Your task to perform on an android device: Go to Reddit.com Image 0: 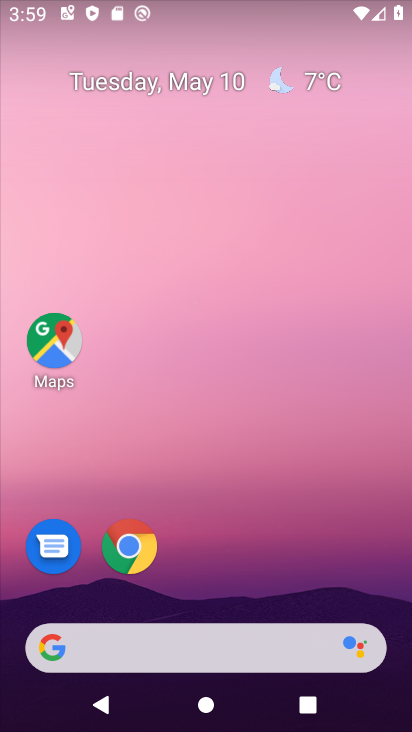
Step 0: drag from (289, 553) to (213, 170)
Your task to perform on an android device: Go to Reddit.com Image 1: 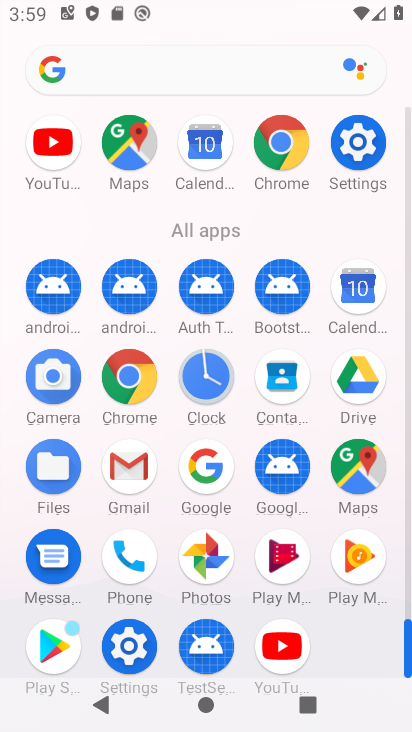
Step 1: click (283, 143)
Your task to perform on an android device: Go to Reddit.com Image 2: 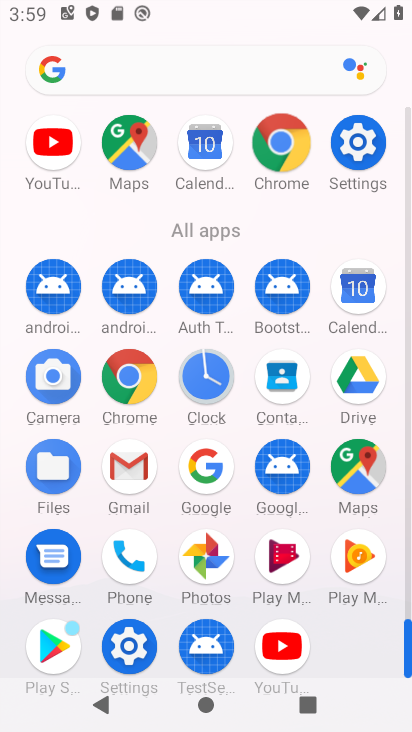
Step 2: click (283, 143)
Your task to perform on an android device: Go to Reddit.com Image 3: 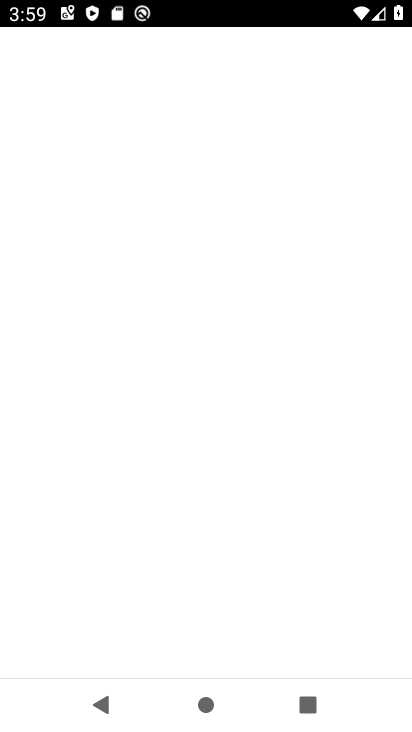
Step 3: click (283, 143)
Your task to perform on an android device: Go to Reddit.com Image 4: 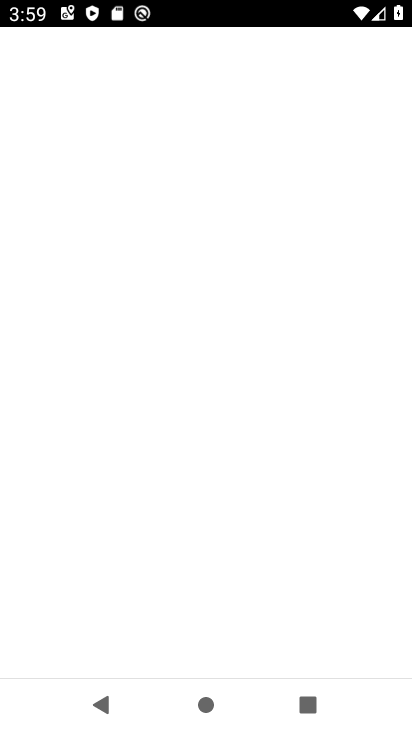
Step 4: click (283, 144)
Your task to perform on an android device: Go to Reddit.com Image 5: 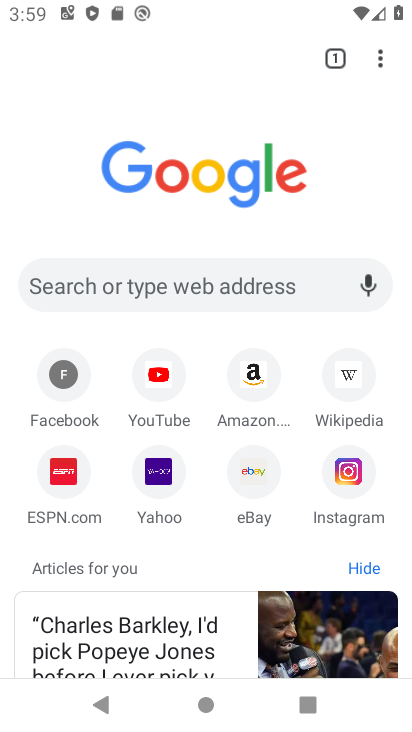
Step 5: click (80, 283)
Your task to perform on an android device: Go to Reddit.com Image 6: 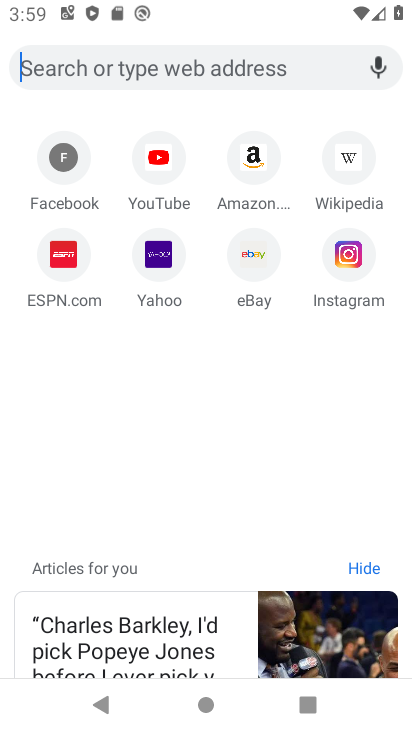
Step 6: click (80, 283)
Your task to perform on an android device: Go to Reddit.com Image 7: 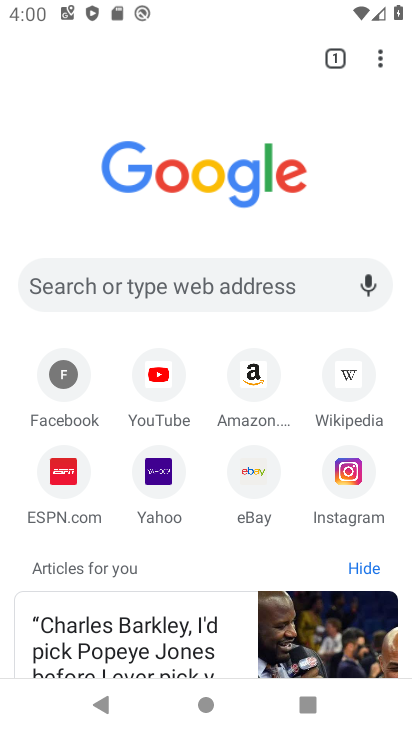
Step 7: click (53, 288)
Your task to perform on an android device: Go to Reddit.com Image 8: 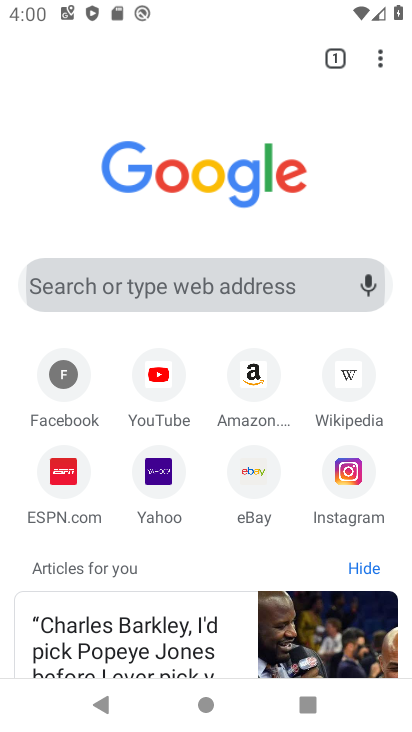
Step 8: click (53, 288)
Your task to perform on an android device: Go to Reddit.com Image 9: 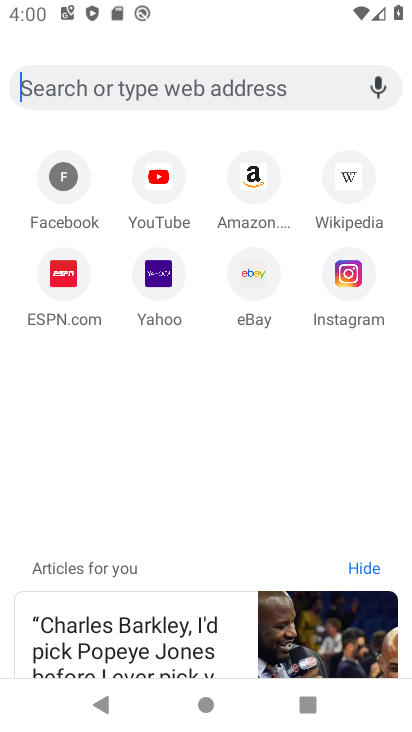
Step 9: click (53, 288)
Your task to perform on an android device: Go to Reddit.com Image 10: 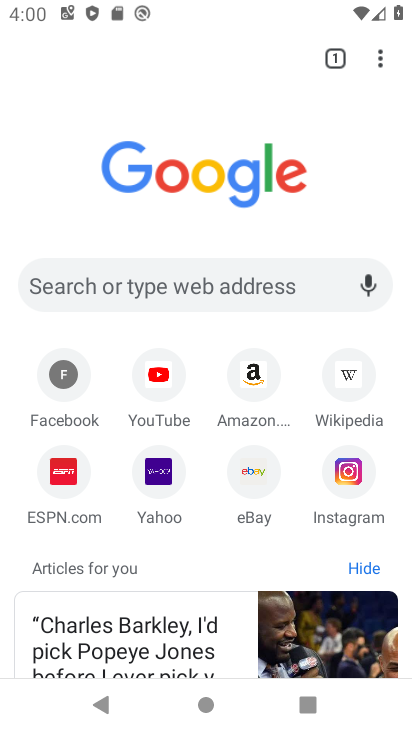
Step 10: click (33, 270)
Your task to perform on an android device: Go to Reddit.com Image 11: 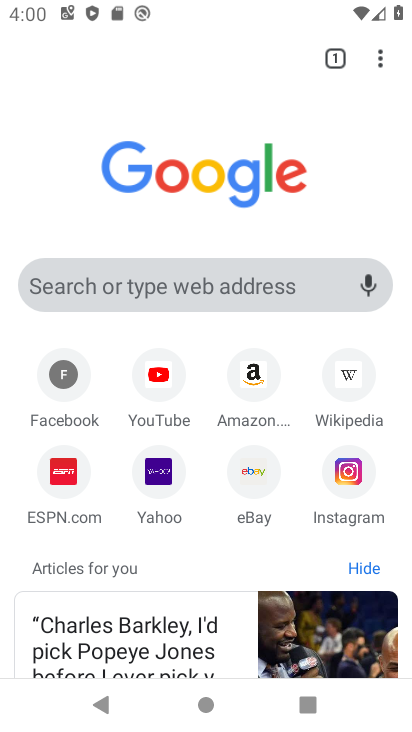
Step 11: click (33, 270)
Your task to perform on an android device: Go to Reddit.com Image 12: 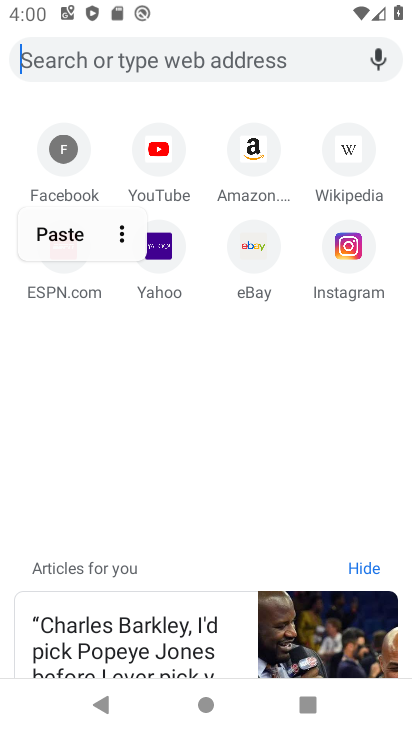
Step 12: click (61, 280)
Your task to perform on an android device: Go to Reddit.com Image 13: 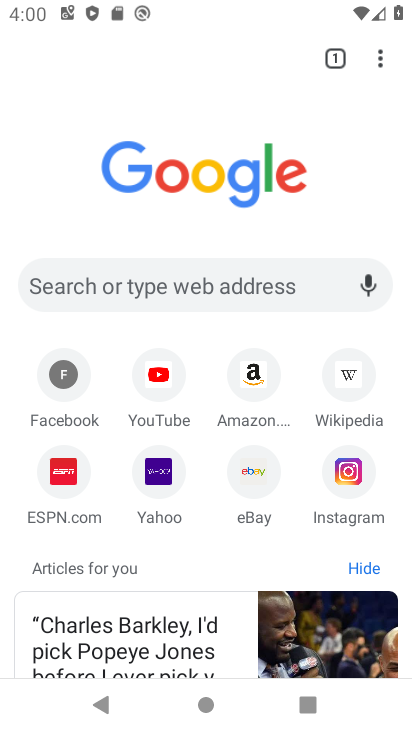
Step 13: type "reddit.com"
Your task to perform on an android device: Go to Reddit.com Image 14: 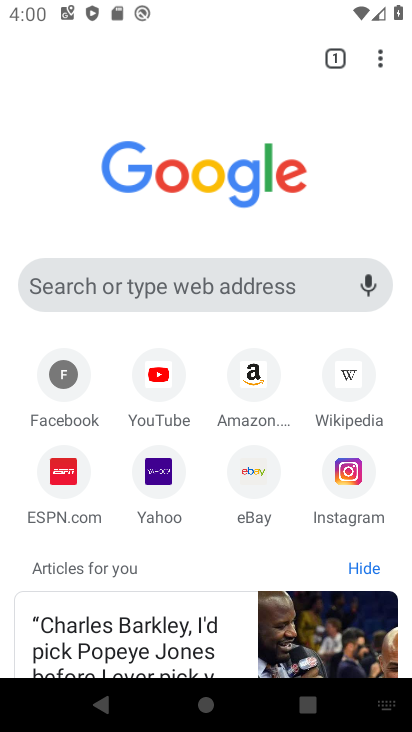
Step 14: click (76, 283)
Your task to perform on an android device: Go to Reddit.com Image 15: 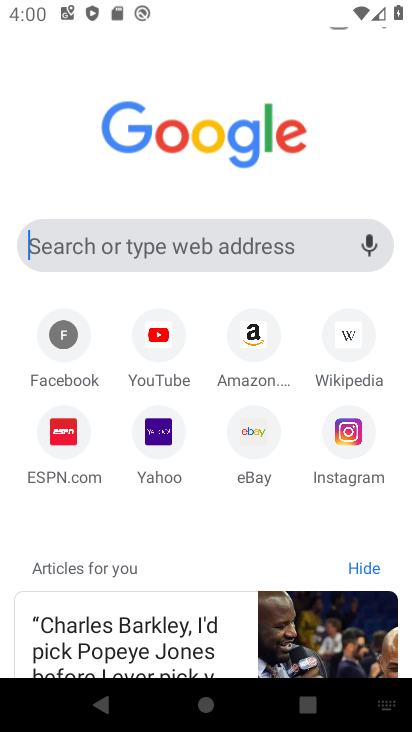
Step 15: click (76, 283)
Your task to perform on an android device: Go to Reddit.com Image 16: 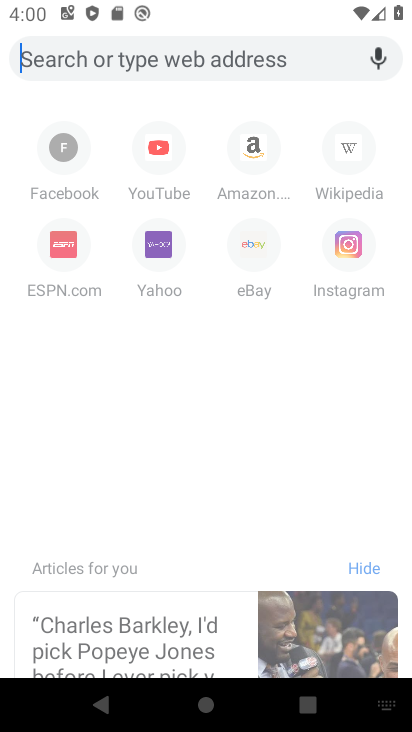
Step 16: click (75, 283)
Your task to perform on an android device: Go to Reddit.com Image 17: 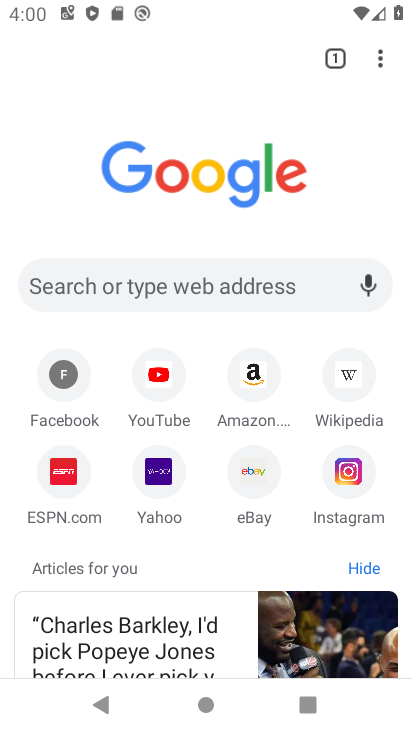
Step 17: type "reddit"
Your task to perform on an android device: Go to Reddit.com Image 18: 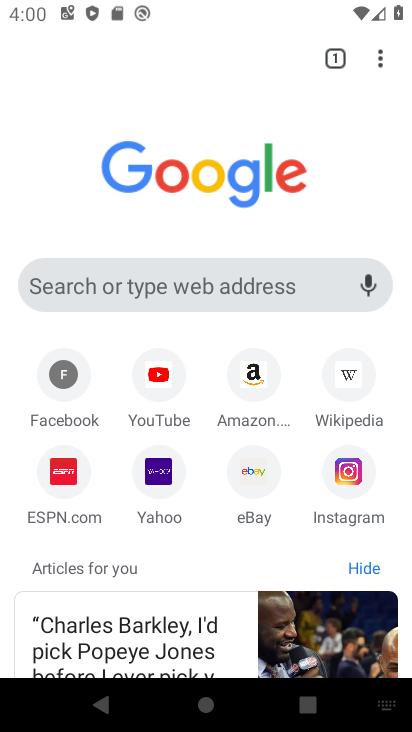
Step 18: click (57, 283)
Your task to perform on an android device: Go to Reddit.com Image 19: 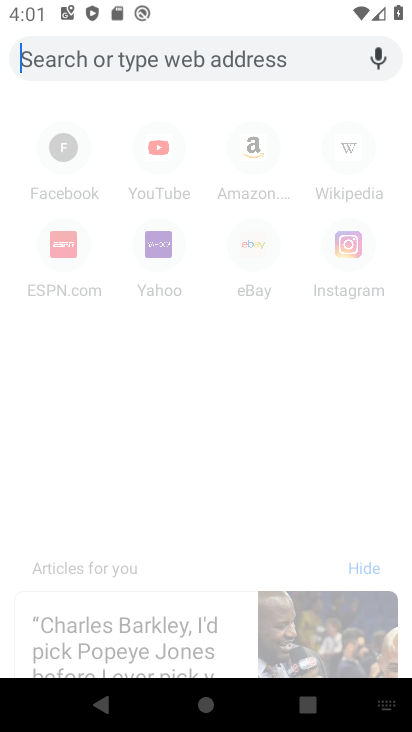
Step 19: type "reddit.com"
Your task to perform on an android device: Go to Reddit.com Image 20: 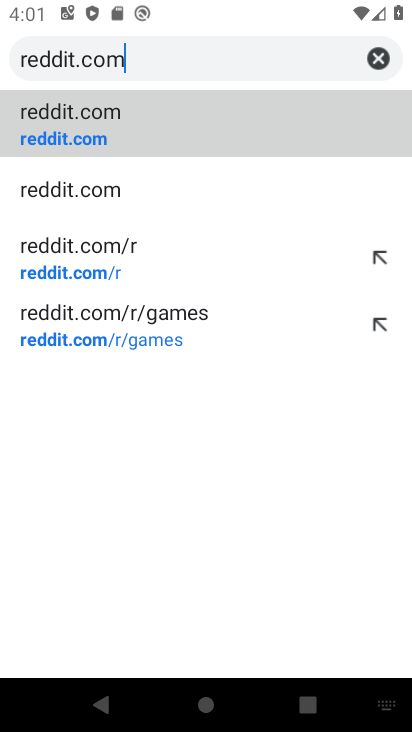
Step 20: click (40, 133)
Your task to perform on an android device: Go to Reddit.com Image 21: 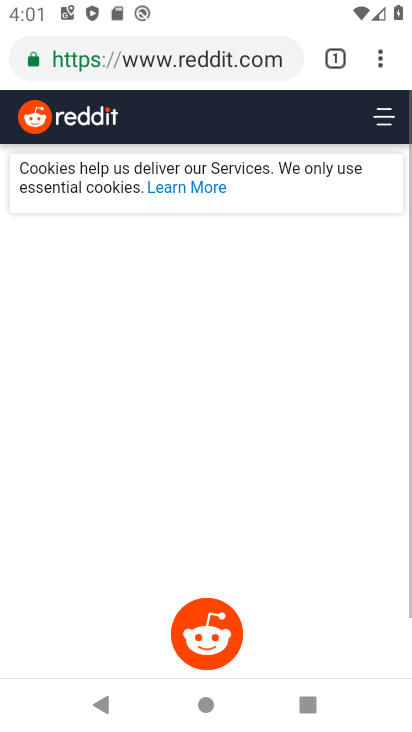
Step 21: task complete